Your task to perform on an android device: Search for Italian restaurants on Maps Image 0: 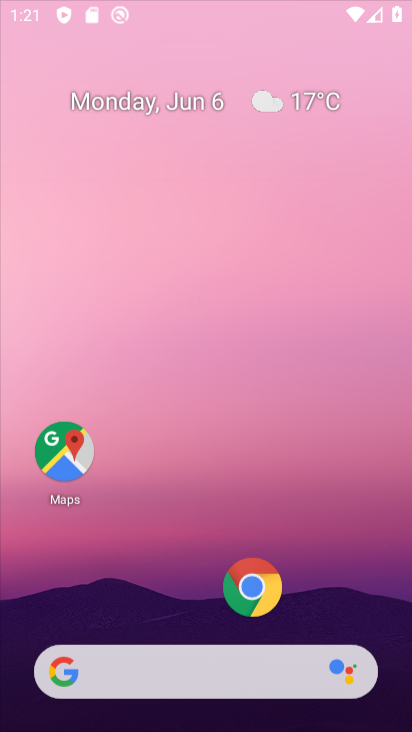
Step 0: drag from (329, 12) to (281, 222)
Your task to perform on an android device: Search for Italian restaurants on Maps Image 1: 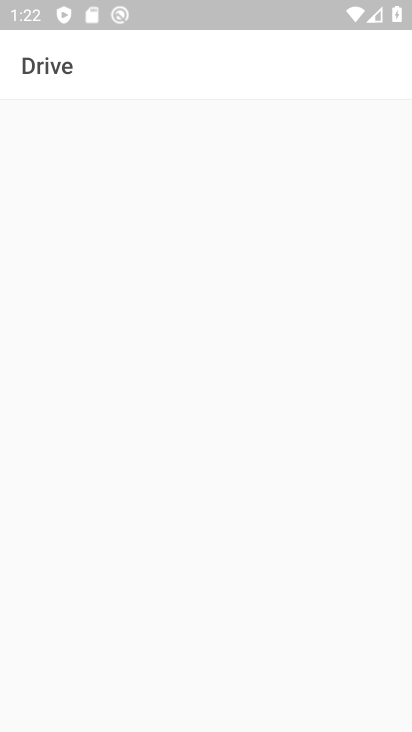
Step 1: press home button
Your task to perform on an android device: Search for Italian restaurants on Maps Image 2: 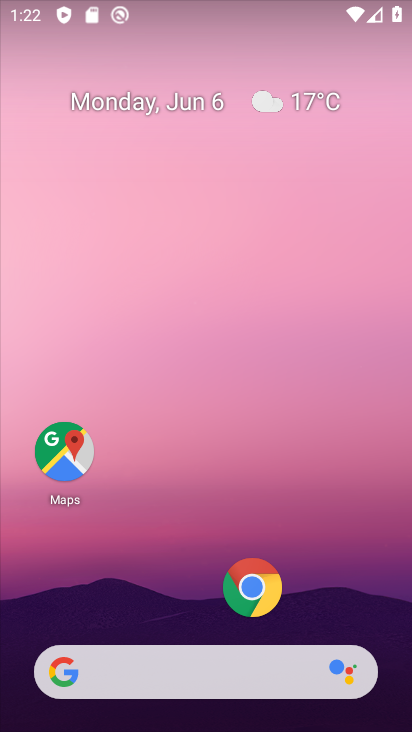
Step 2: click (71, 426)
Your task to perform on an android device: Search for Italian restaurants on Maps Image 3: 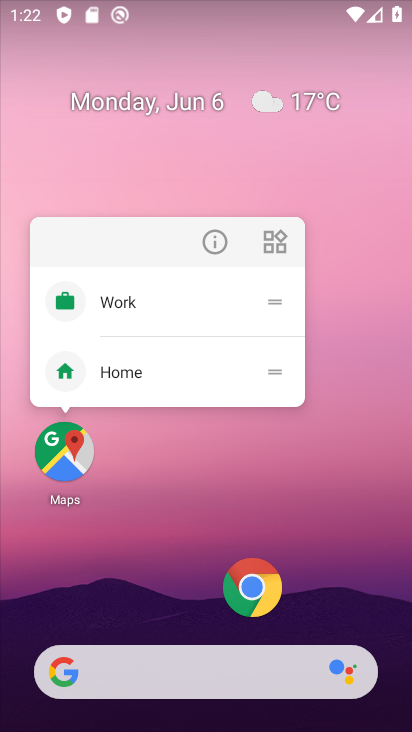
Step 3: click (70, 464)
Your task to perform on an android device: Search for Italian restaurants on Maps Image 4: 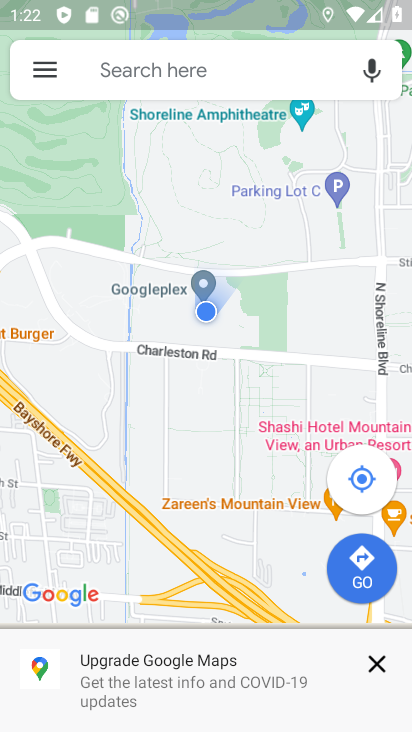
Step 4: click (247, 58)
Your task to perform on an android device: Search for Italian restaurants on Maps Image 5: 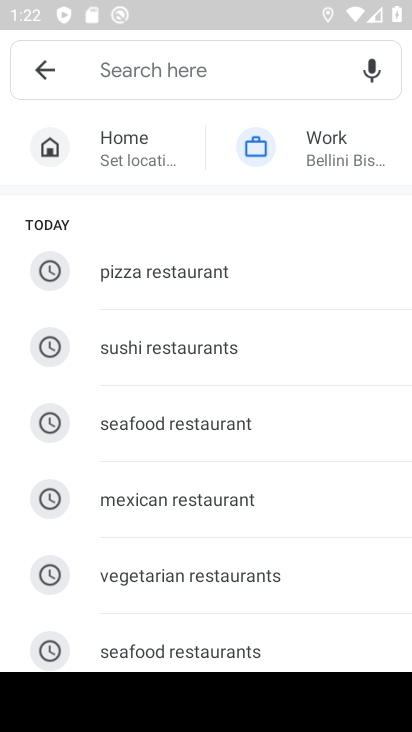
Step 5: type "italian restaurants"
Your task to perform on an android device: Search for Italian restaurants on Maps Image 6: 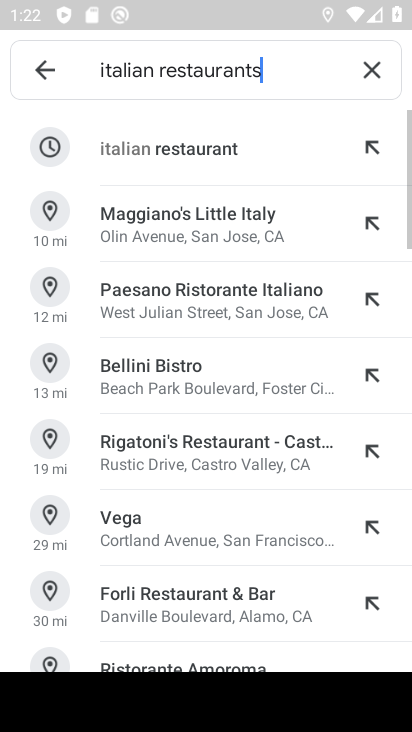
Step 6: click (172, 145)
Your task to perform on an android device: Search for Italian restaurants on Maps Image 7: 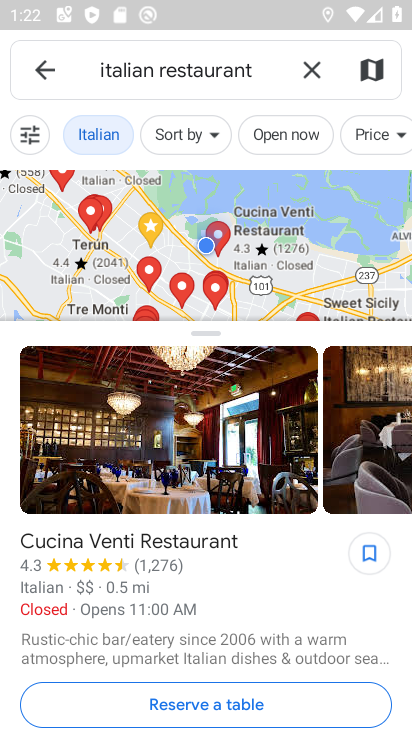
Step 7: task complete